Your task to perform on an android device: Open display settings Image 0: 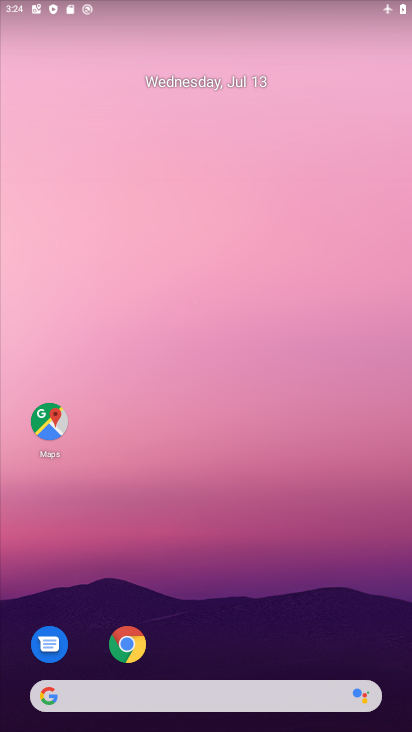
Step 0: click (190, 5)
Your task to perform on an android device: Open display settings Image 1: 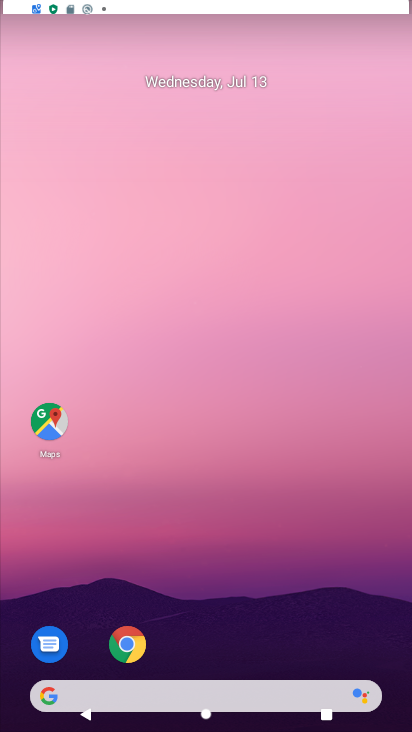
Step 1: drag from (270, 582) to (235, 214)
Your task to perform on an android device: Open display settings Image 2: 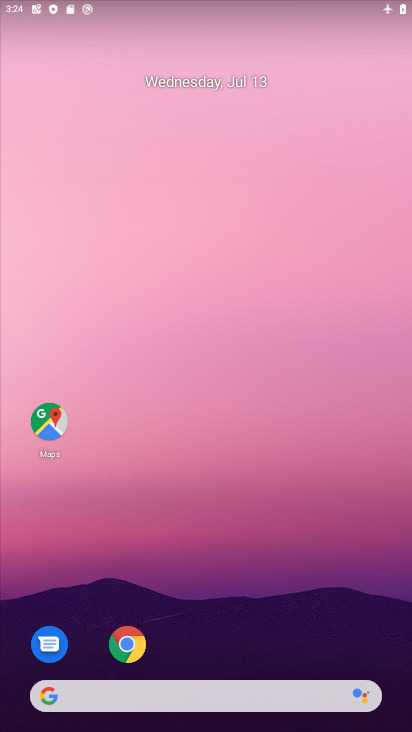
Step 2: drag from (264, 607) to (255, 161)
Your task to perform on an android device: Open display settings Image 3: 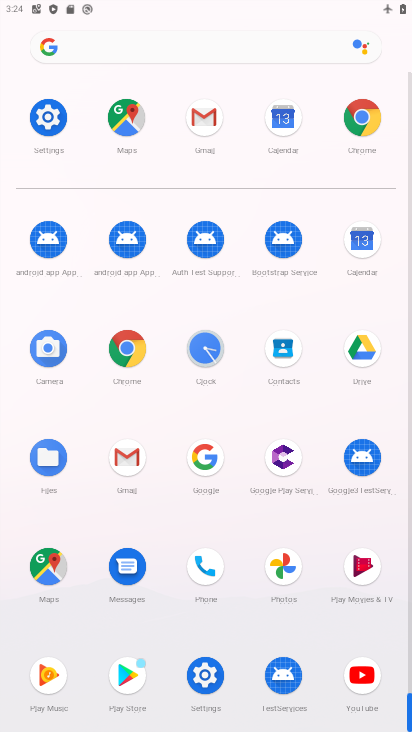
Step 3: click (47, 108)
Your task to perform on an android device: Open display settings Image 4: 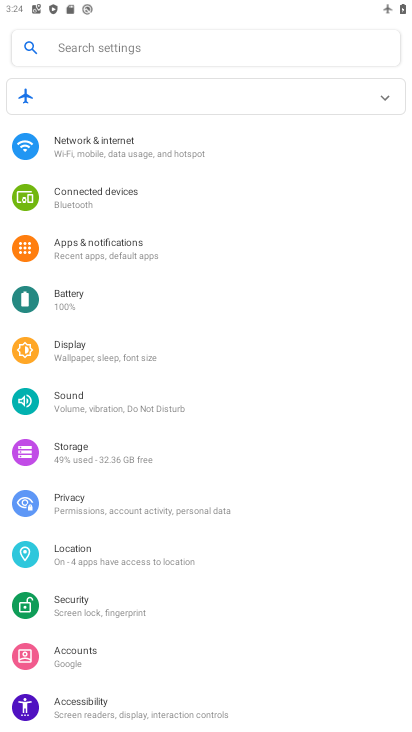
Step 4: click (155, 360)
Your task to perform on an android device: Open display settings Image 5: 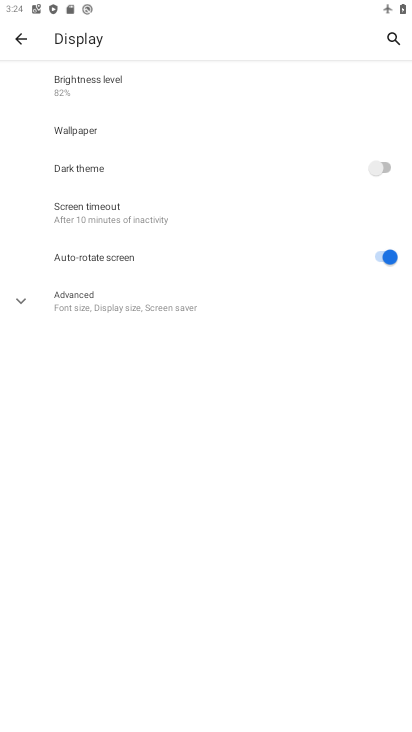
Step 5: task complete